Your task to perform on an android device: Go to network settings Image 0: 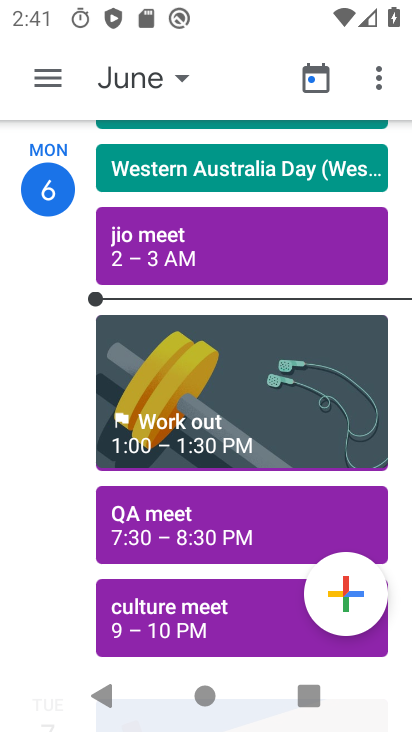
Step 0: press home button
Your task to perform on an android device: Go to network settings Image 1: 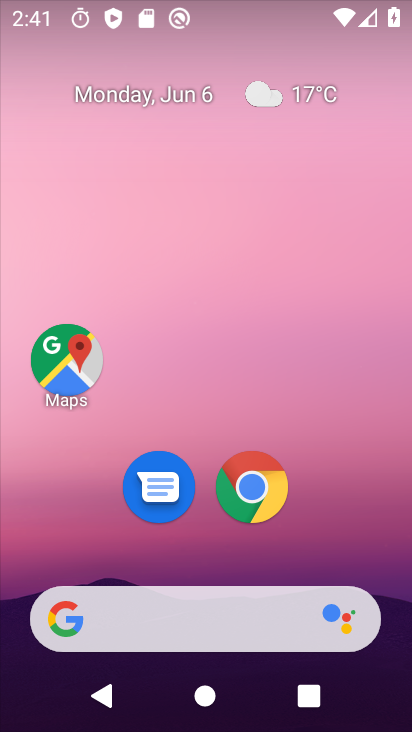
Step 1: drag from (251, 479) to (354, 76)
Your task to perform on an android device: Go to network settings Image 2: 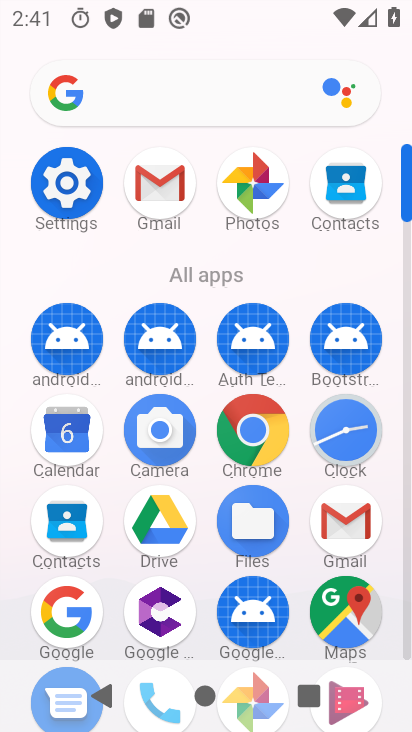
Step 2: drag from (113, 565) to (209, 246)
Your task to perform on an android device: Go to network settings Image 3: 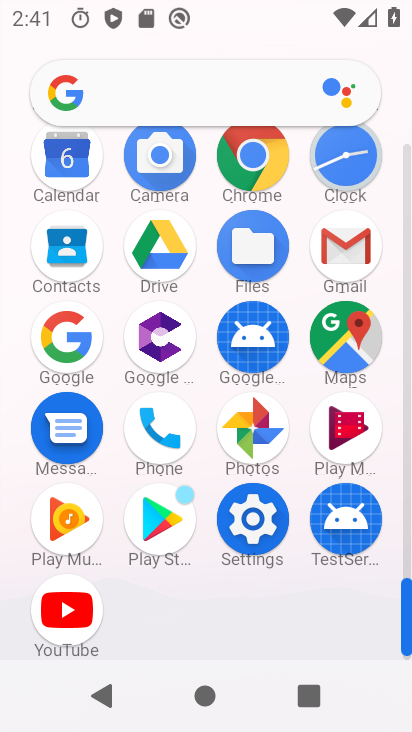
Step 3: click (256, 543)
Your task to perform on an android device: Go to network settings Image 4: 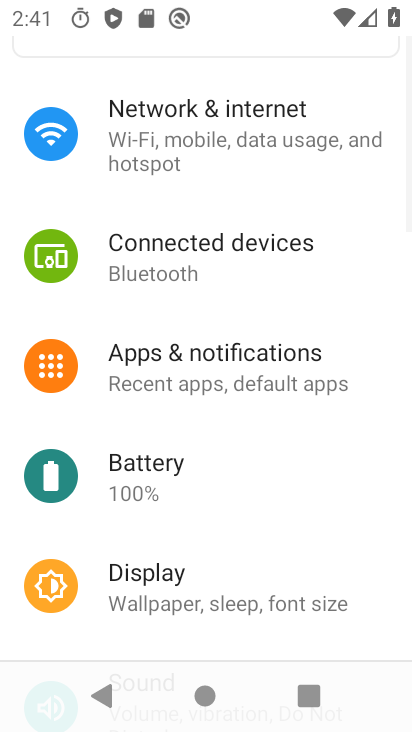
Step 4: drag from (255, 129) to (237, 560)
Your task to perform on an android device: Go to network settings Image 5: 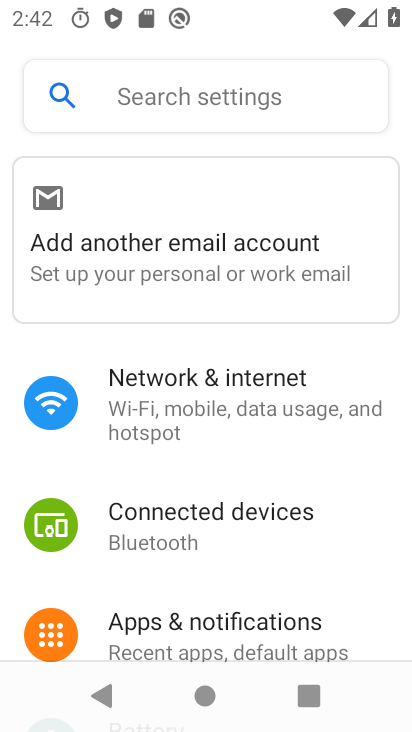
Step 5: click (253, 406)
Your task to perform on an android device: Go to network settings Image 6: 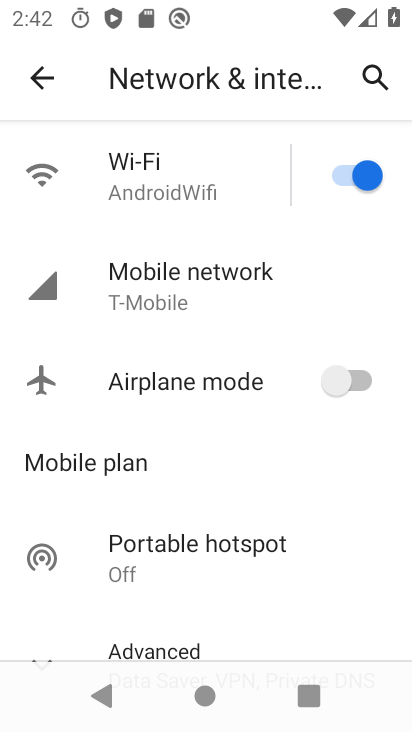
Step 6: click (241, 321)
Your task to perform on an android device: Go to network settings Image 7: 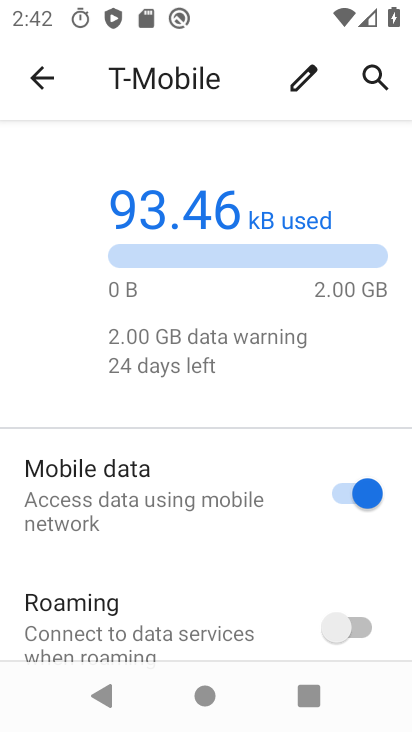
Step 7: task complete